Your task to perform on an android device: toggle javascript in the chrome app Image 0: 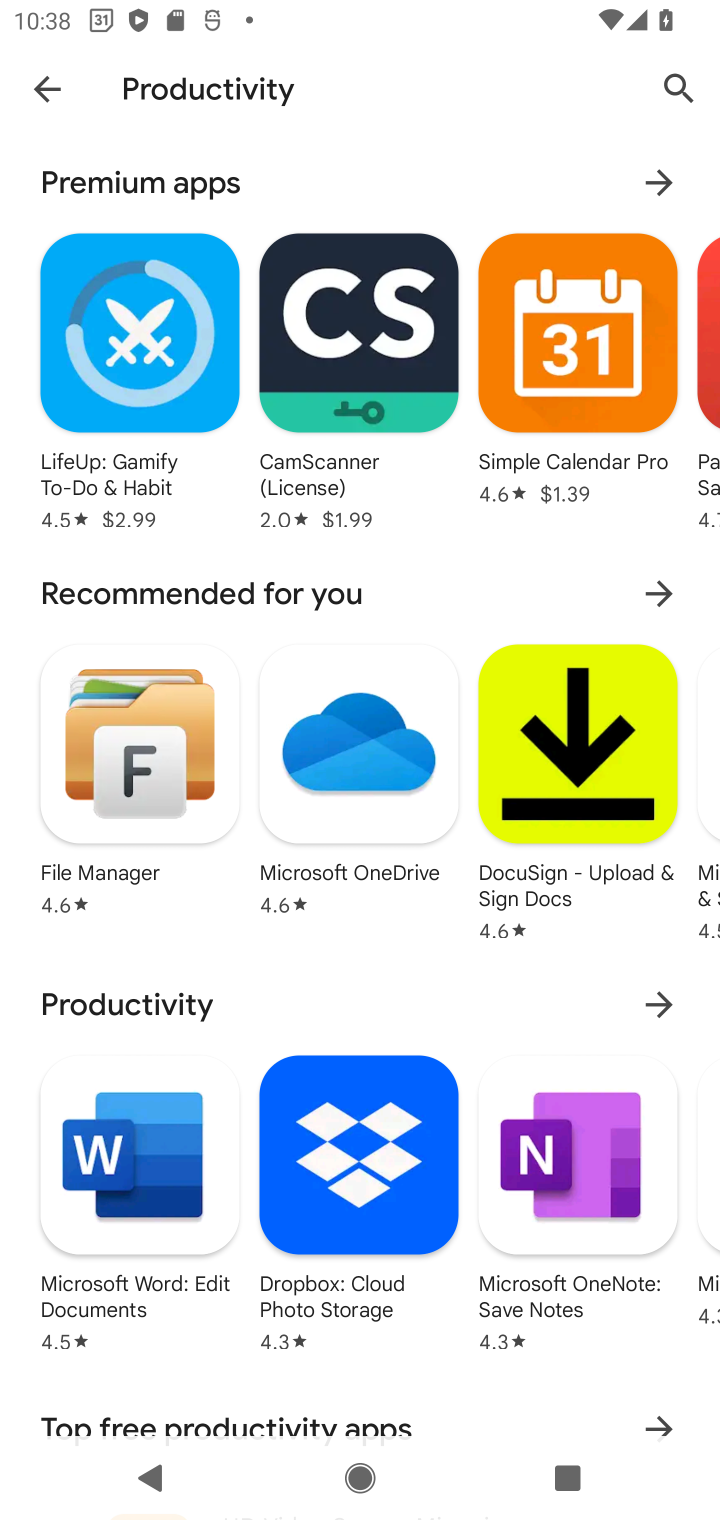
Step 0: press home button
Your task to perform on an android device: toggle javascript in the chrome app Image 1: 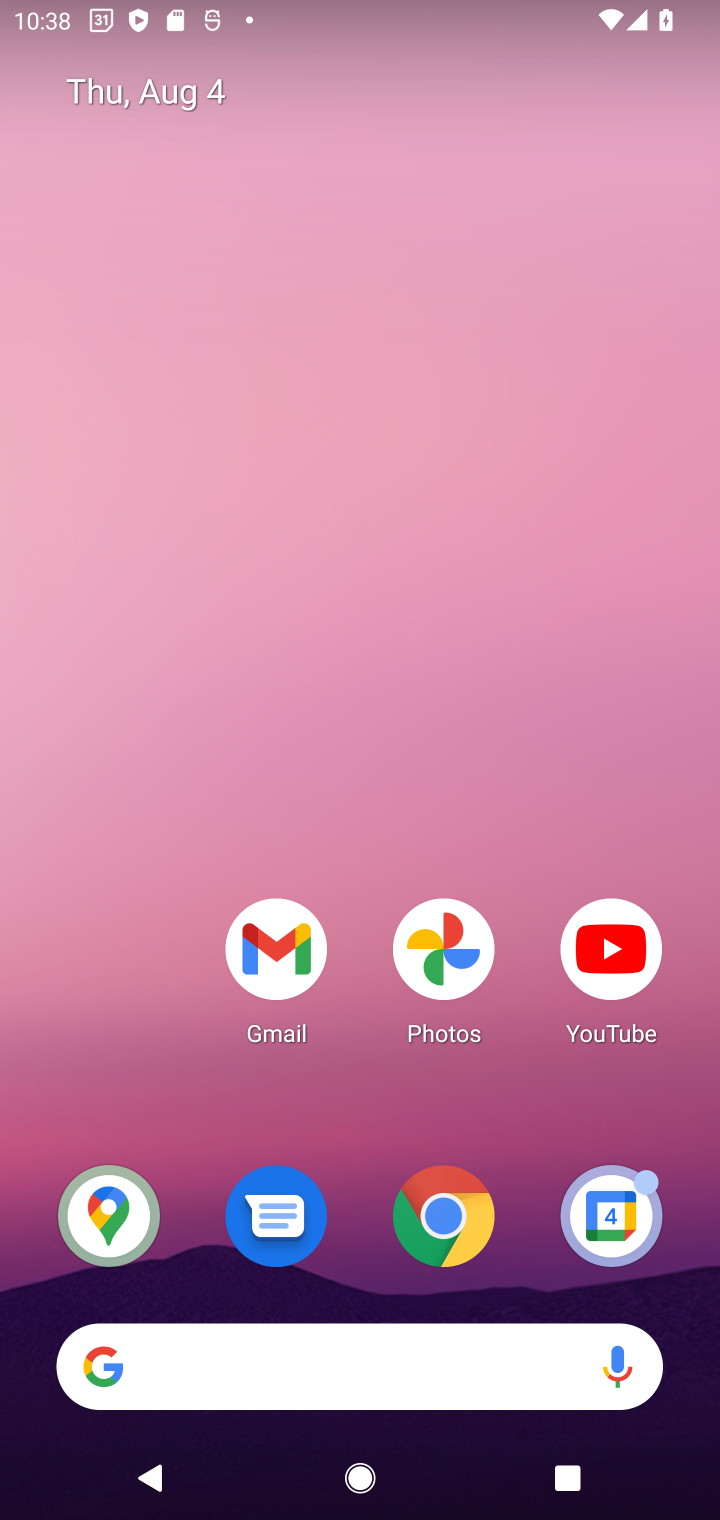
Step 1: click (440, 1214)
Your task to perform on an android device: toggle javascript in the chrome app Image 2: 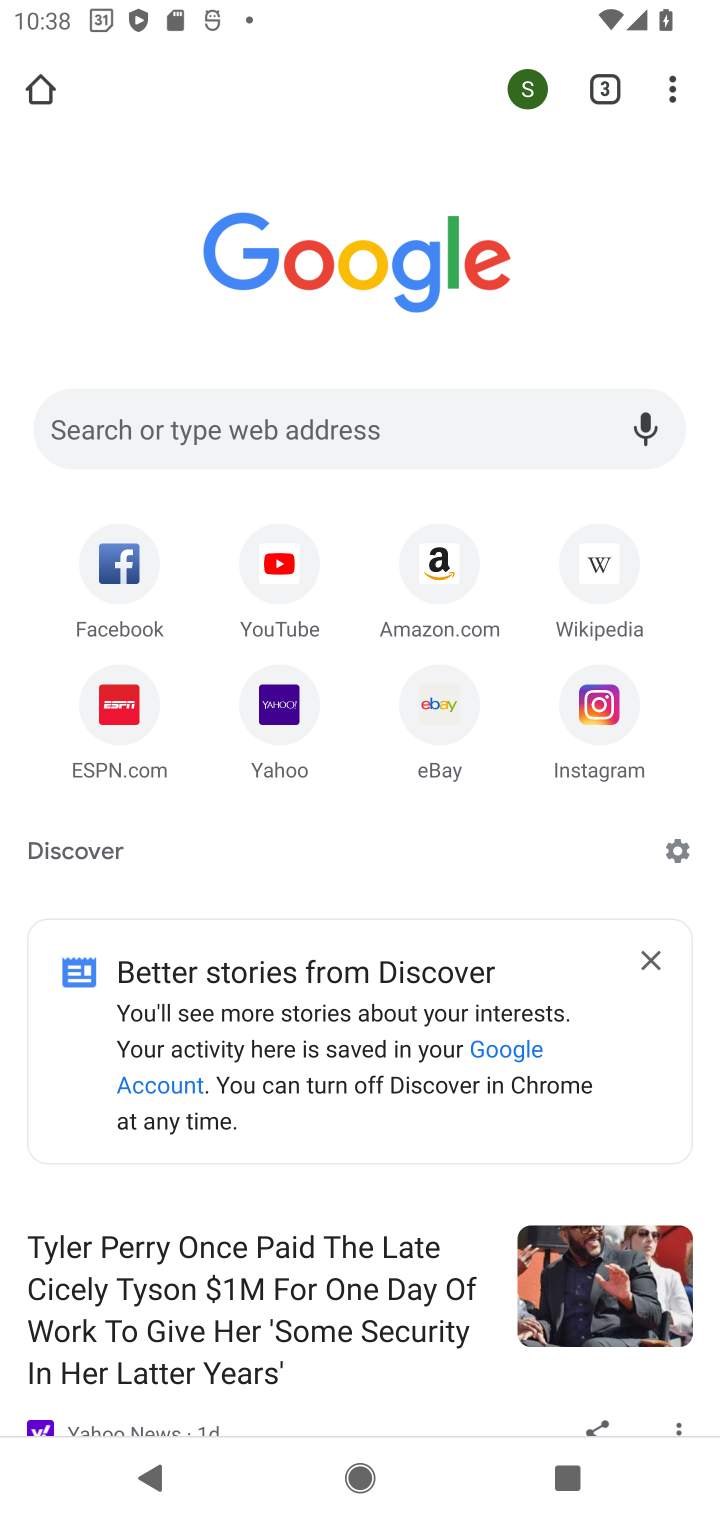
Step 2: click (673, 86)
Your task to perform on an android device: toggle javascript in the chrome app Image 3: 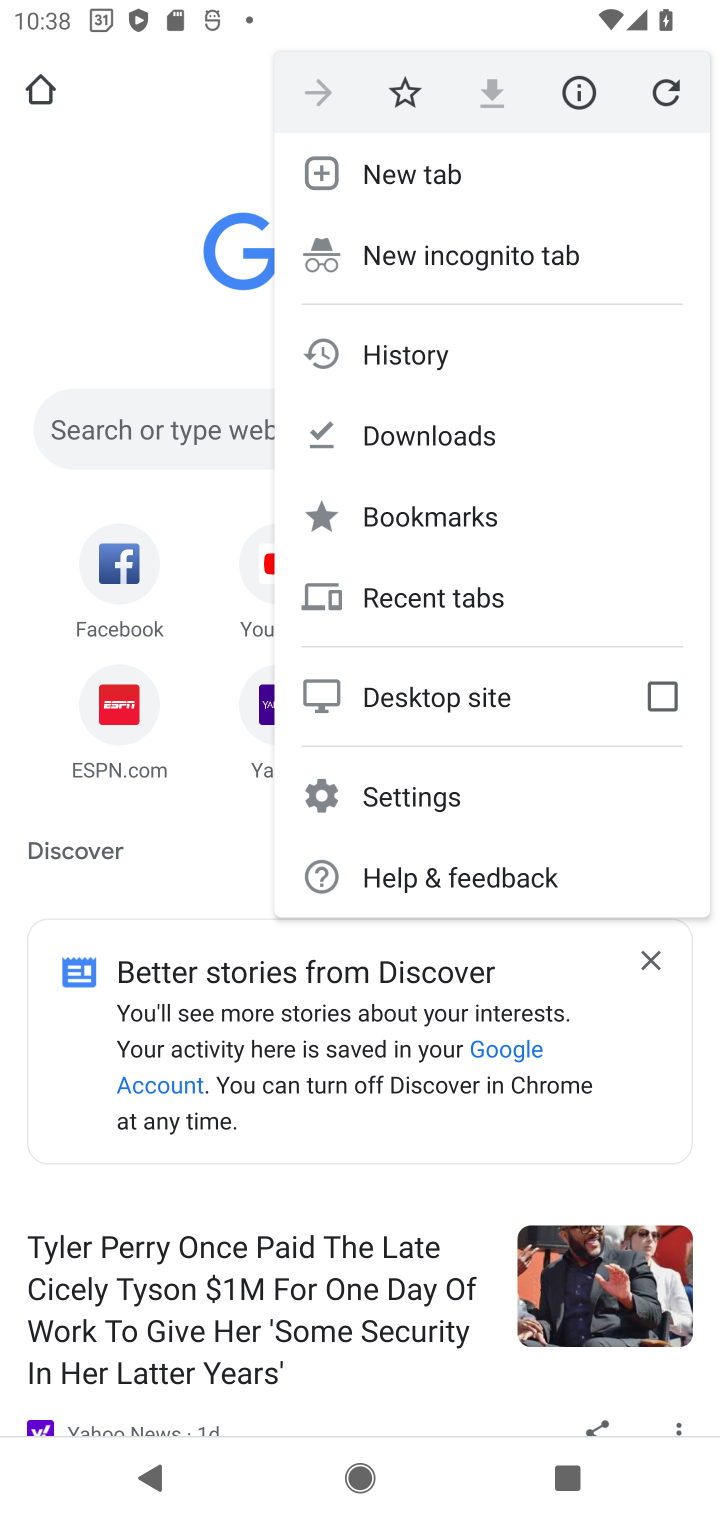
Step 3: click (403, 793)
Your task to perform on an android device: toggle javascript in the chrome app Image 4: 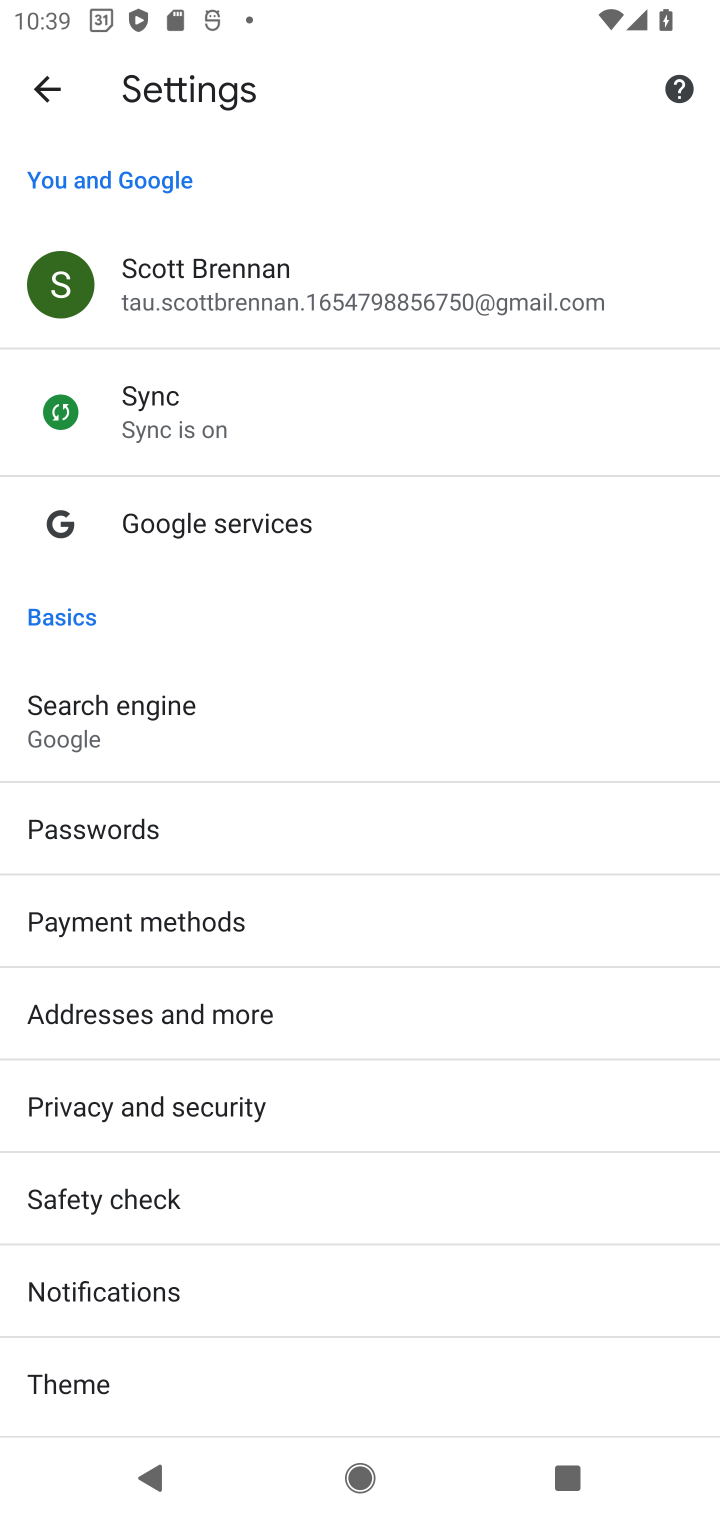
Step 4: drag from (191, 1146) to (331, 914)
Your task to perform on an android device: toggle javascript in the chrome app Image 5: 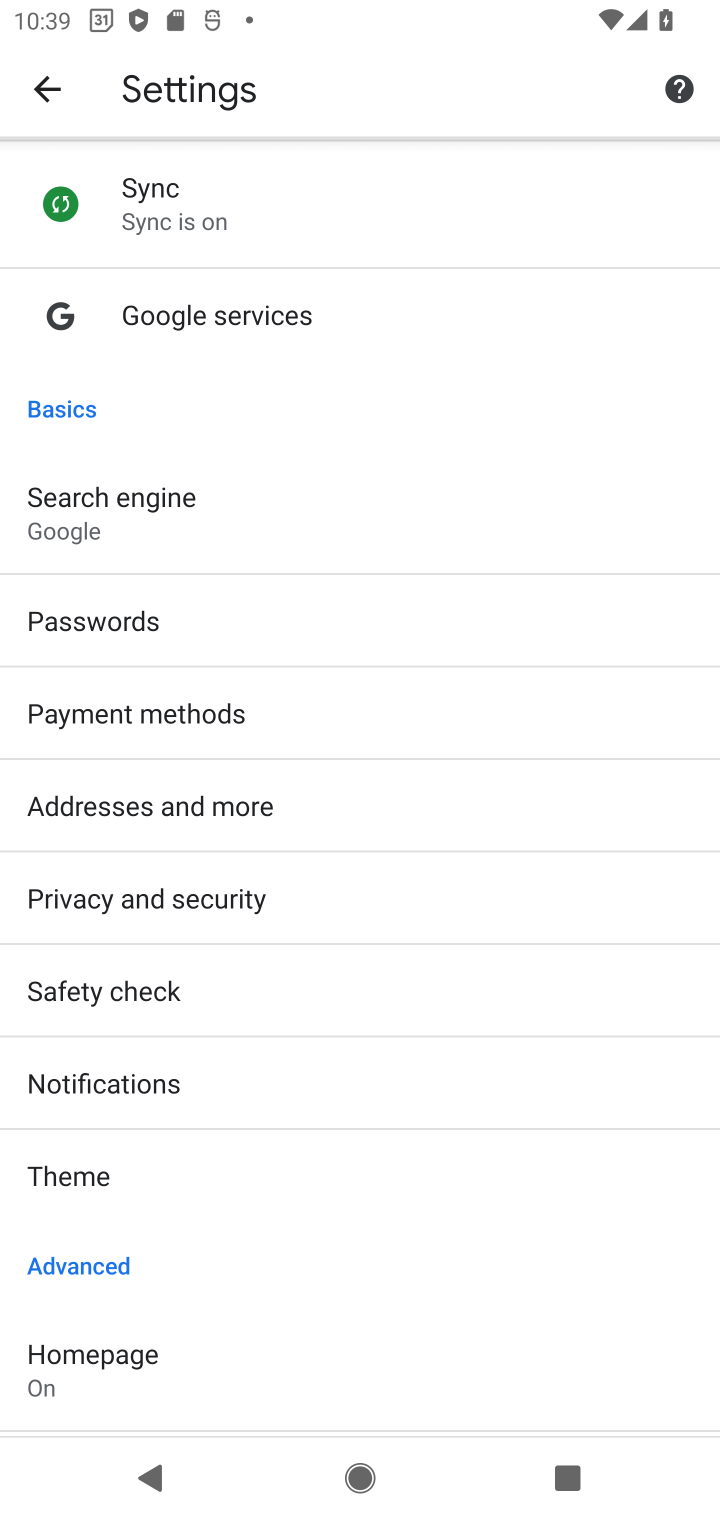
Step 5: drag from (209, 1215) to (378, 947)
Your task to perform on an android device: toggle javascript in the chrome app Image 6: 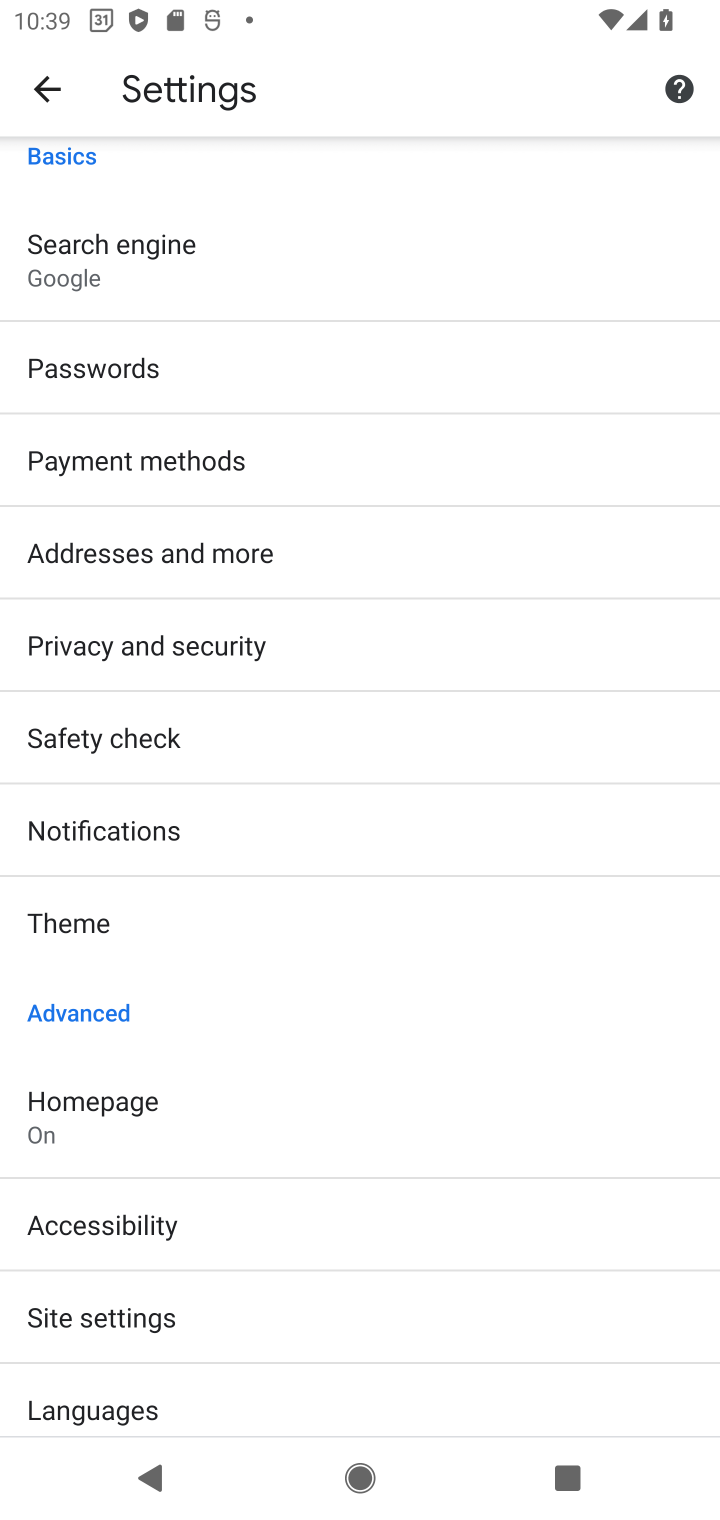
Step 6: drag from (226, 1241) to (321, 1049)
Your task to perform on an android device: toggle javascript in the chrome app Image 7: 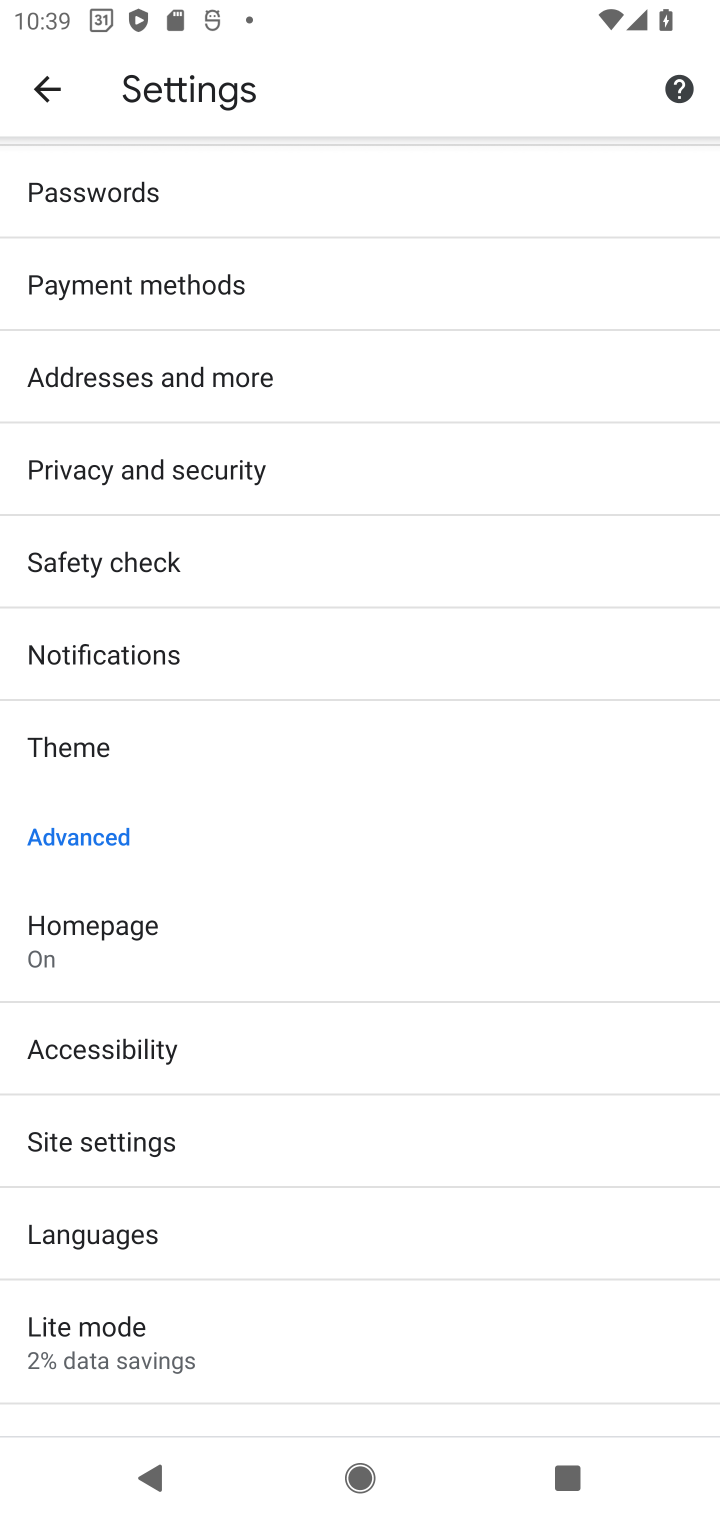
Step 7: click (120, 1148)
Your task to perform on an android device: toggle javascript in the chrome app Image 8: 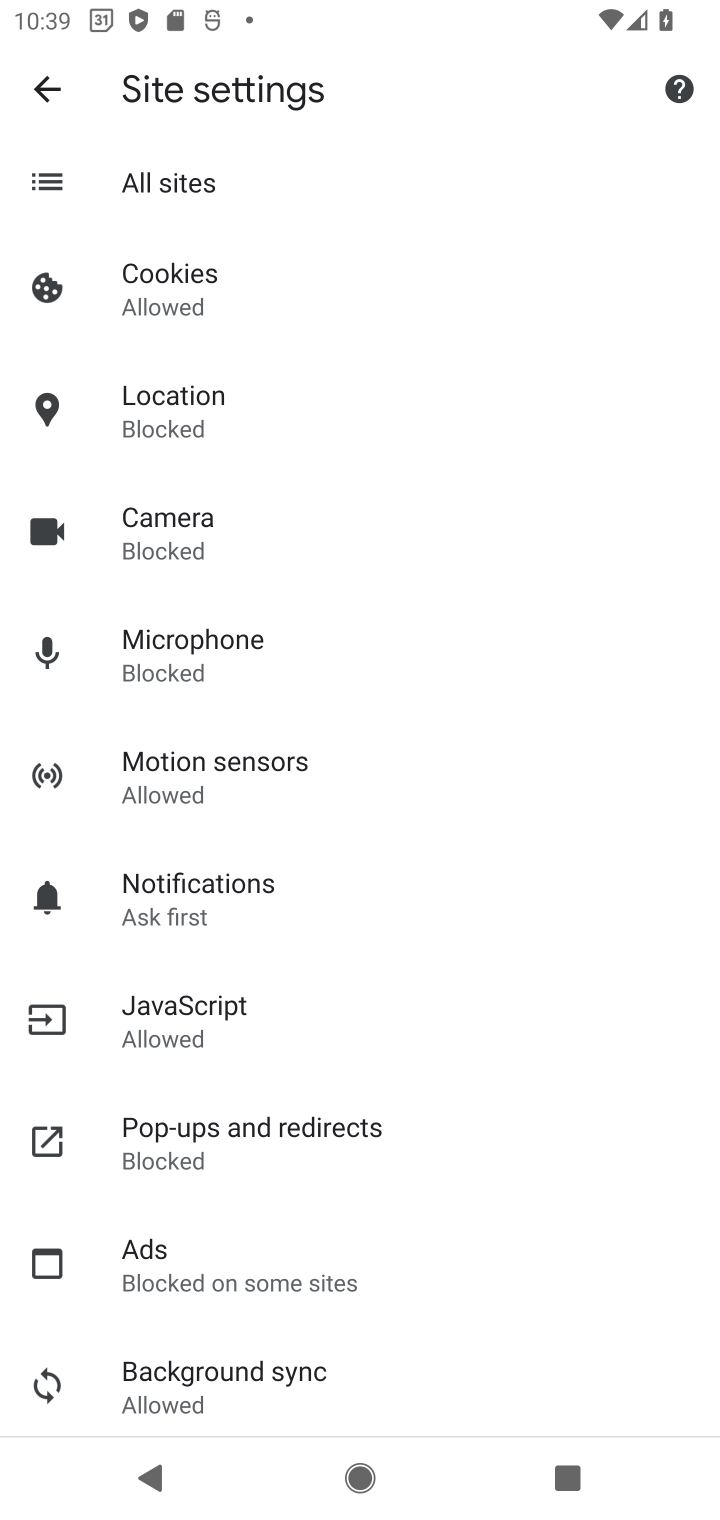
Step 8: click (203, 1023)
Your task to perform on an android device: toggle javascript in the chrome app Image 9: 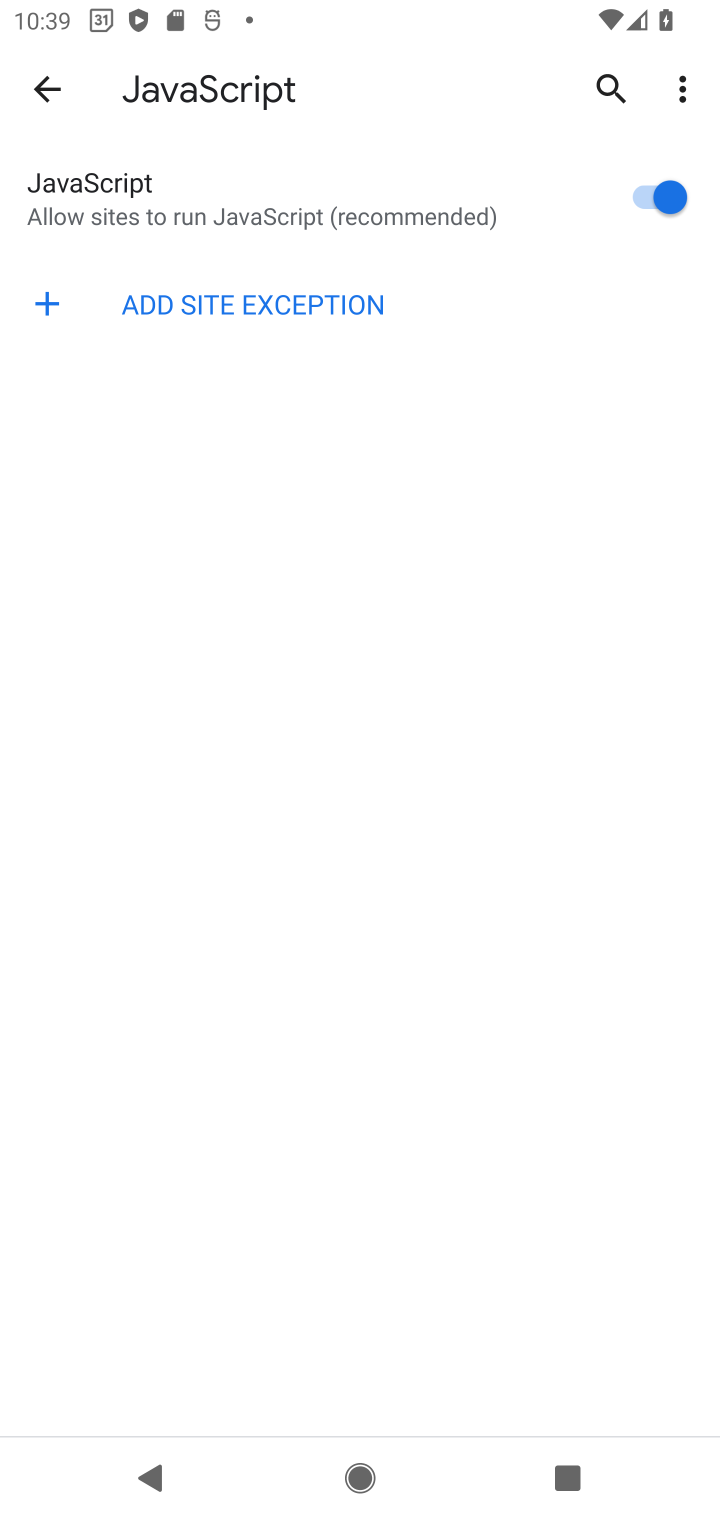
Step 9: click (639, 185)
Your task to perform on an android device: toggle javascript in the chrome app Image 10: 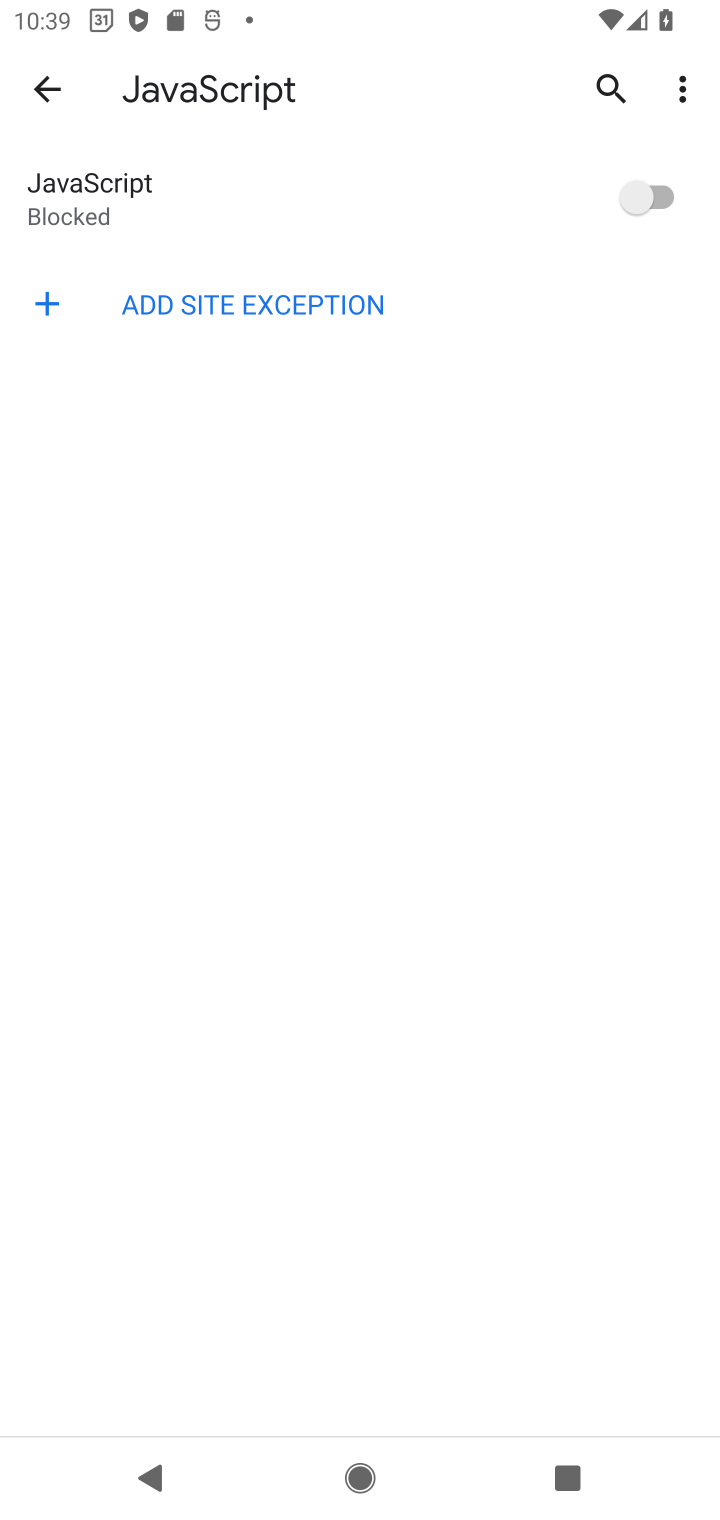
Step 10: task complete